Your task to perform on an android device: read, delete, or share a saved page in the chrome app Image 0: 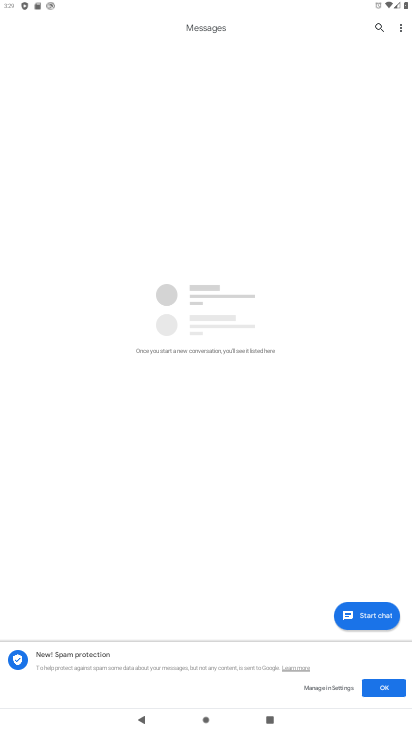
Step 0: press home button
Your task to perform on an android device: read, delete, or share a saved page in the chrome app Image 1: 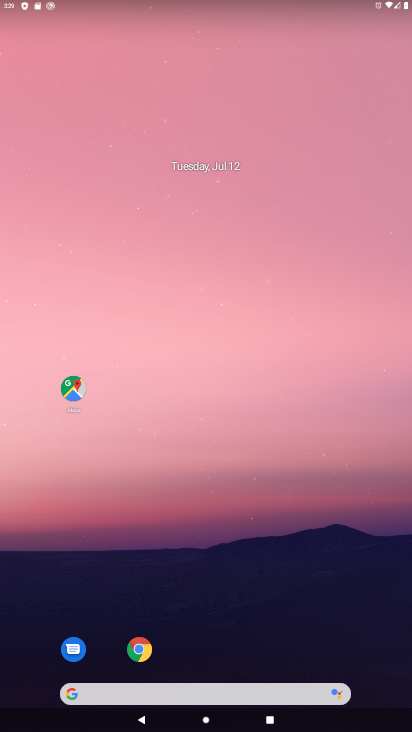
Step 1: click (135, 651)
Your task to perform on an android device: read, delete, or share a saved page in the chrome app Image 2: 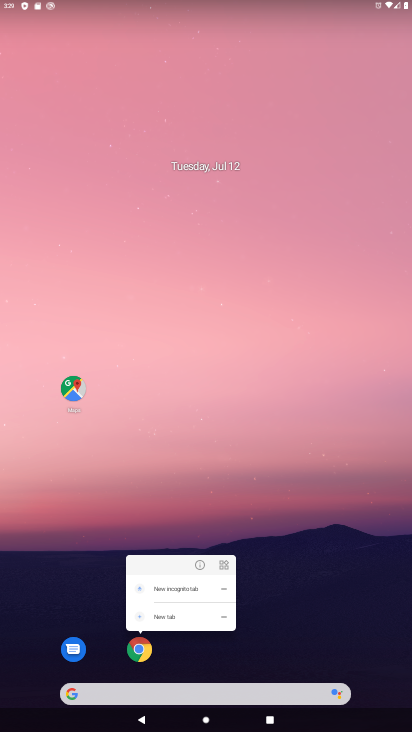
Step 2: click (140, 646)
Your task to perform on an android device: read, delete, or share a saved page in the chrome app Image 3: 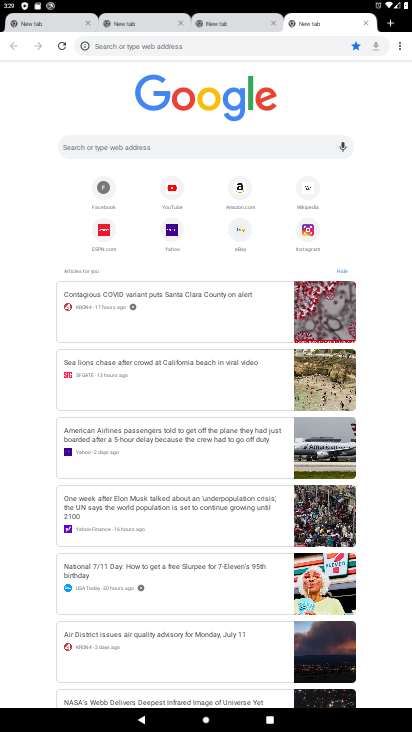
Step 3: click (401, 49)
Your task to perform on an android device: read, delete, or share a saved page in the chrome app Image 4: 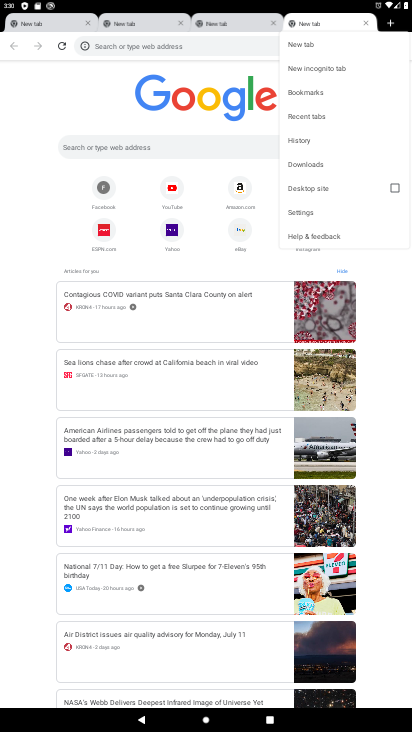
Step 4: click (311, 166)
Your task to perform on an android device: read, delete, or share a saved page in the chrome app Image 5: 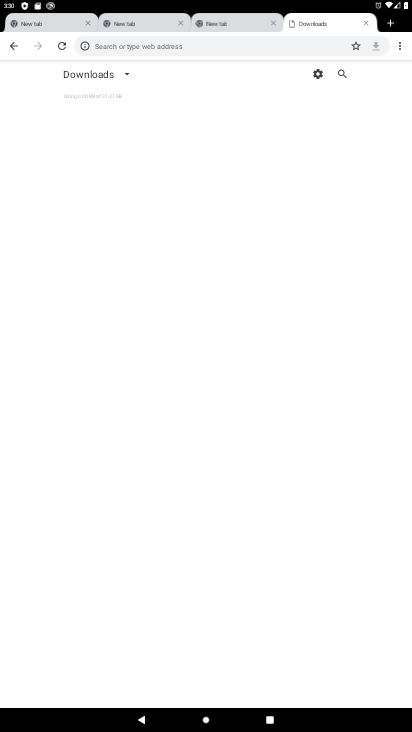
Step 5: click (127, 75)
Your task to perform on an android device: read, delete, or share a saved page in the chrome app Image 6: 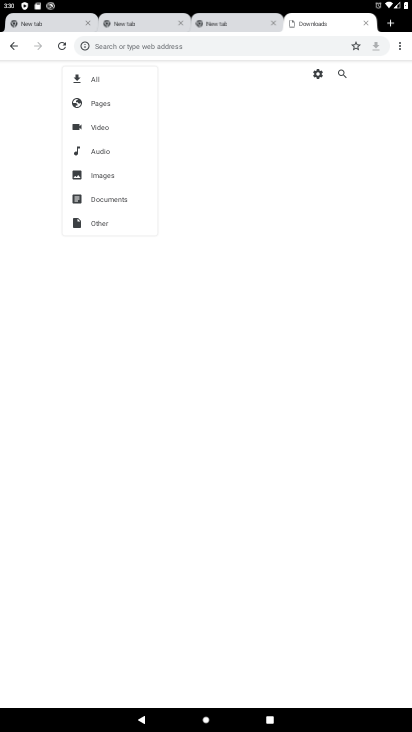
Step 6: click (96, 108)
Your task to perform on an android device: read, delete, or share a saved page in the chrome app Image 7: 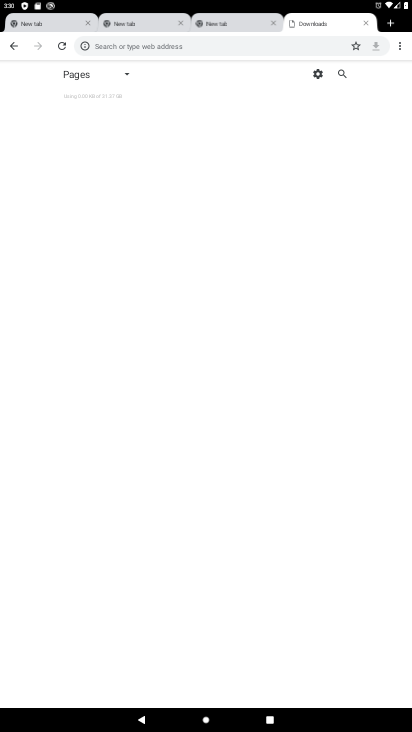
Step 7: task complete